Your task to perform on an android device: Look up the best rated Nike shoes on Nike.com Image 0: 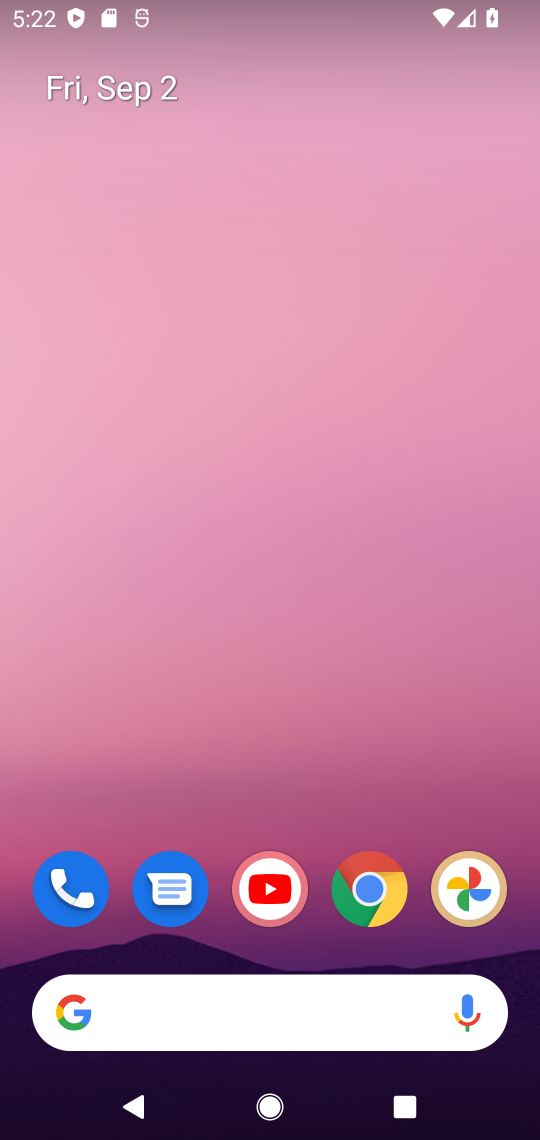
Step 0: click (273, 1000)
Your task to perform on an android device: Look up the best rated Nike shoes on Nike.com Image 1: 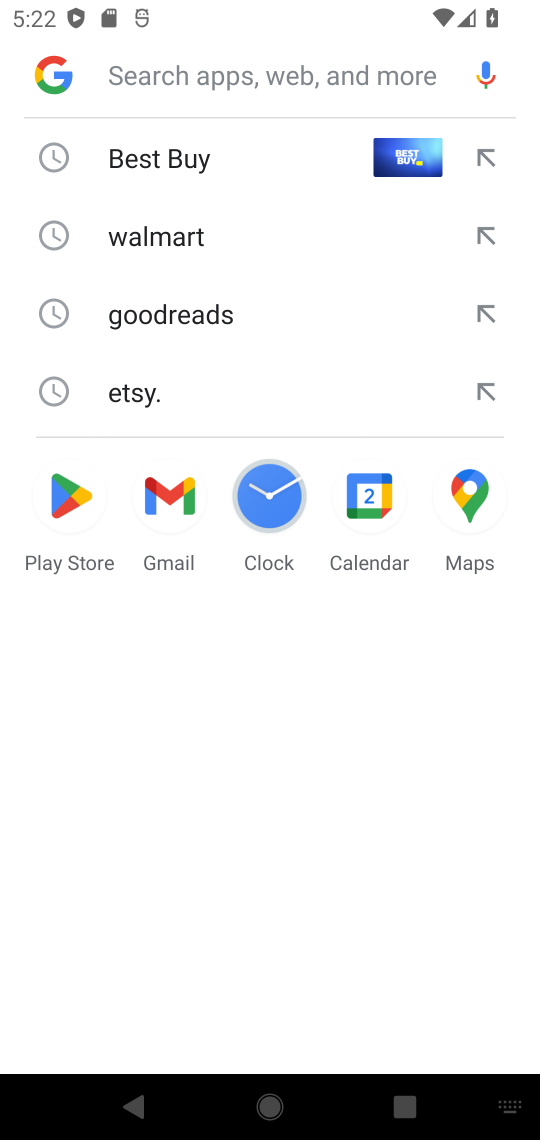
Step 1: type "Nike.com"
Your task to perform on an android device: Look up the best rated Nike shoes on Nike.com Image 2: 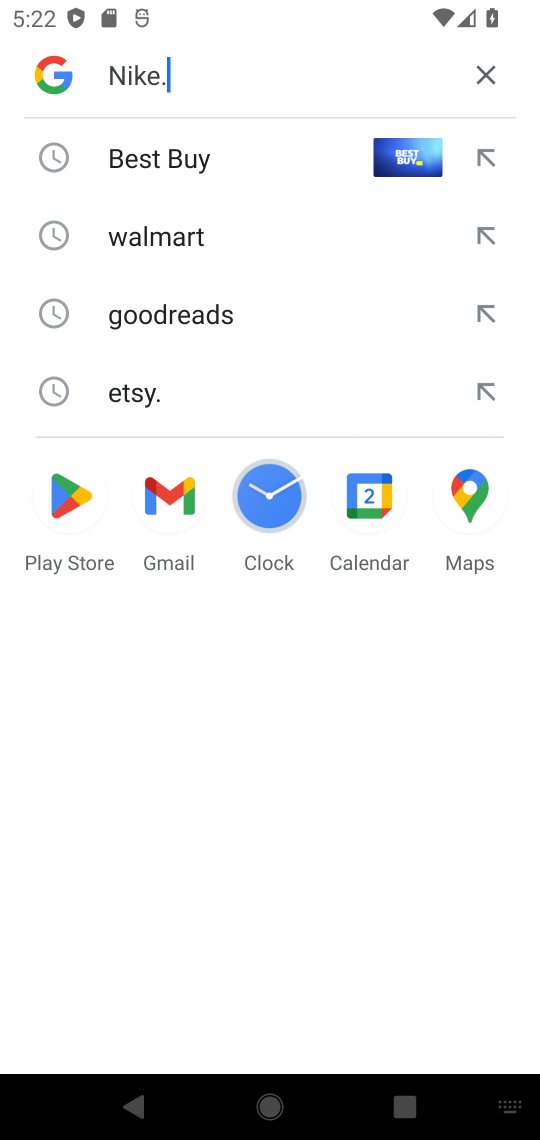
Step 2: type ""
Your task to perform on an android device: Look up the best rated Nike shoes on Nike.com Image 3: 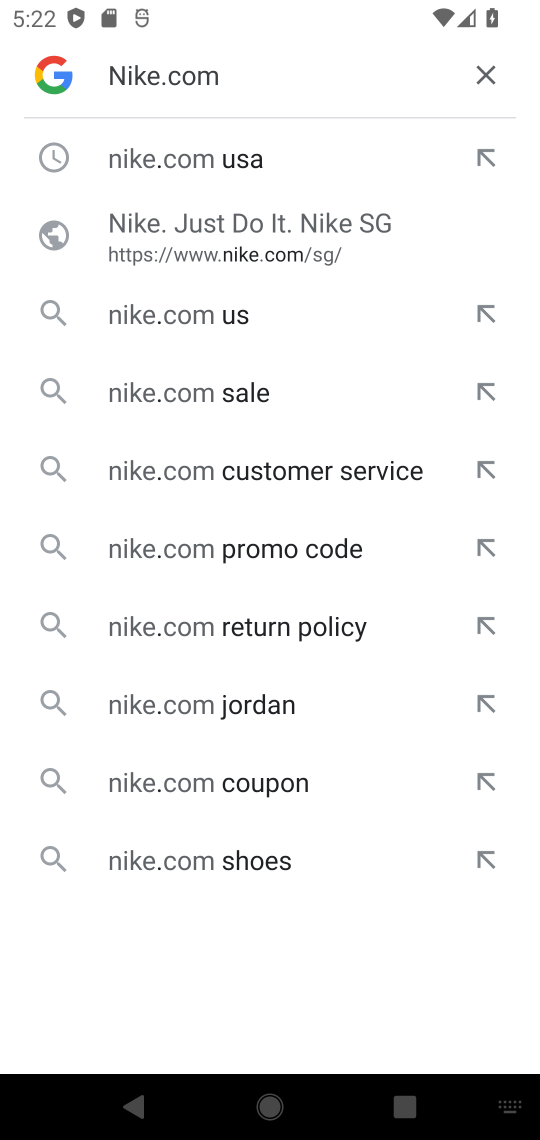
Step 3: click (199, 166)
Your task to perform on an android device: Look up the best rated Nike shoes on Nike.com Image 4: 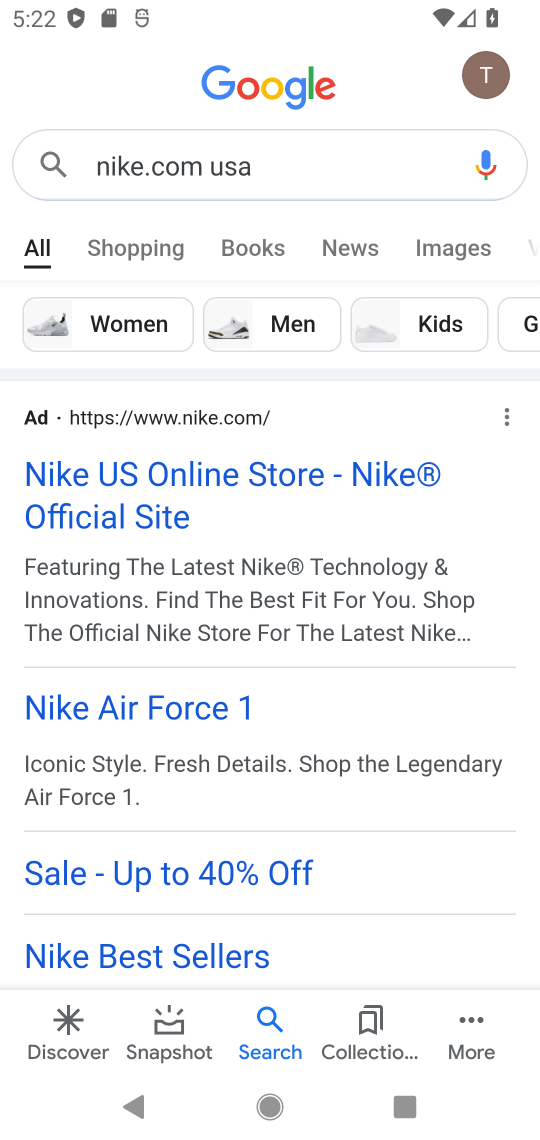
Step 4: drag from (224, 841) to (294, 458)
Your task to perform on an android device: Look up the best rated Nike shoes on Nike.com Image 5: 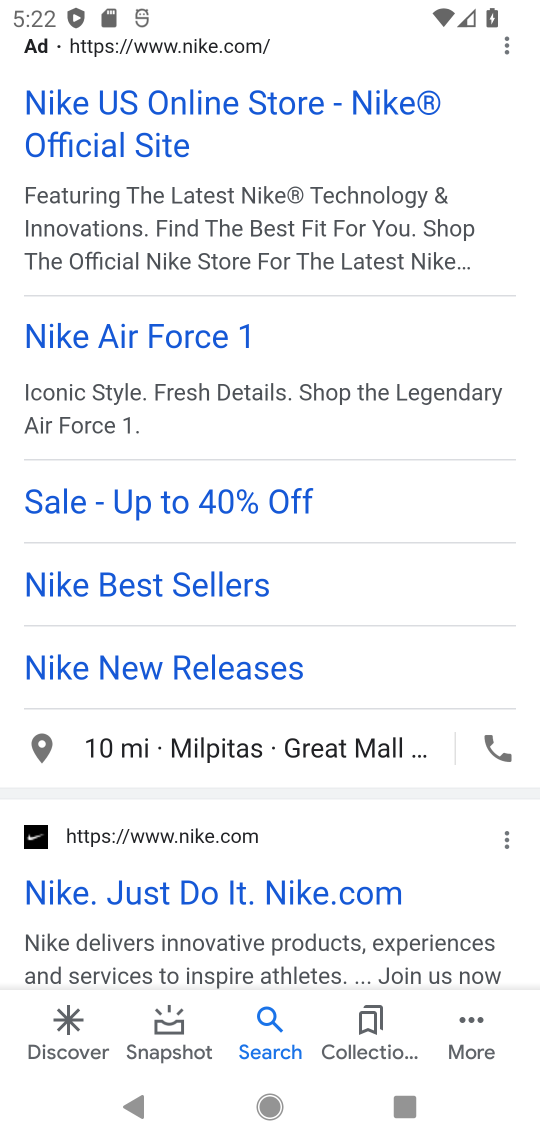
Step 5: click (234, 889)
Your task to perform on an android device: Look up the best rated Nike shoes on Nike.com Image 6: 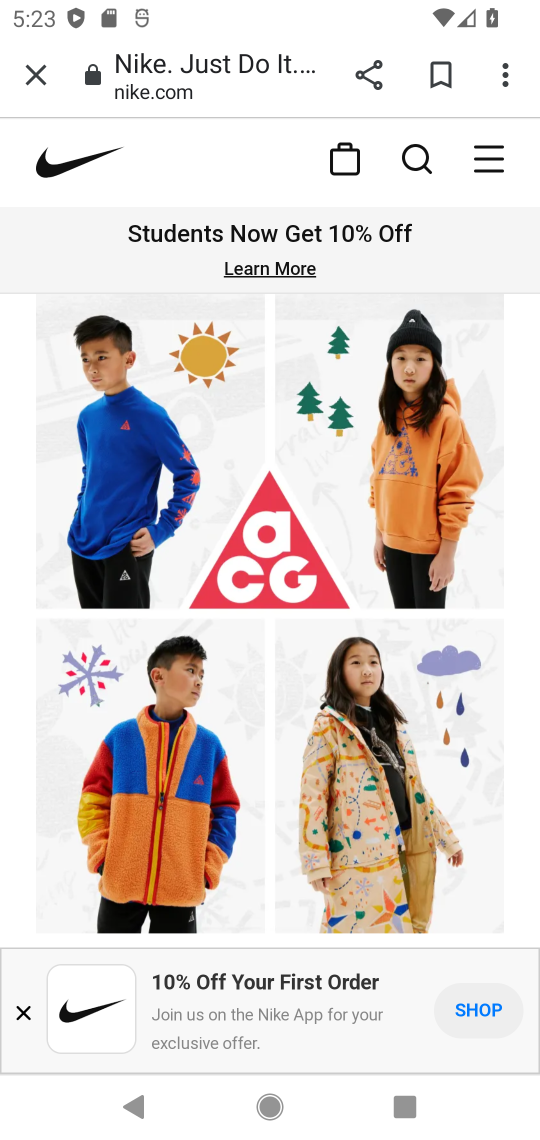
Step 6: click (407, 154)
Your task to perform on an android device: Look up the best rated Nike shoes on Nike.com Image 7: 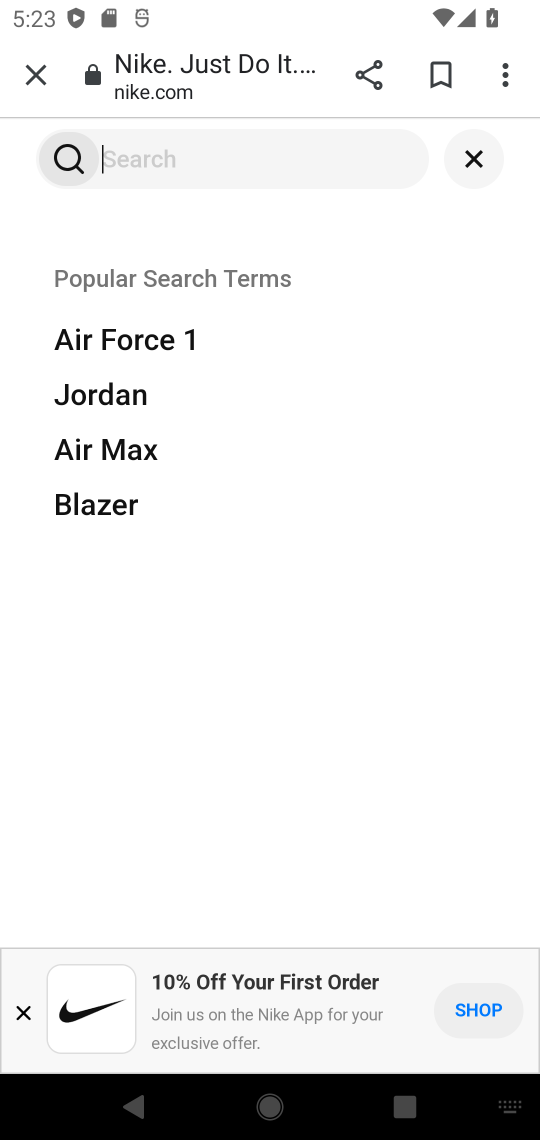
Step 7: type "best rated Nike shoes"
Your task to perform on an android device: Look up the best rated Nike shoes on Nike.com Image 8: 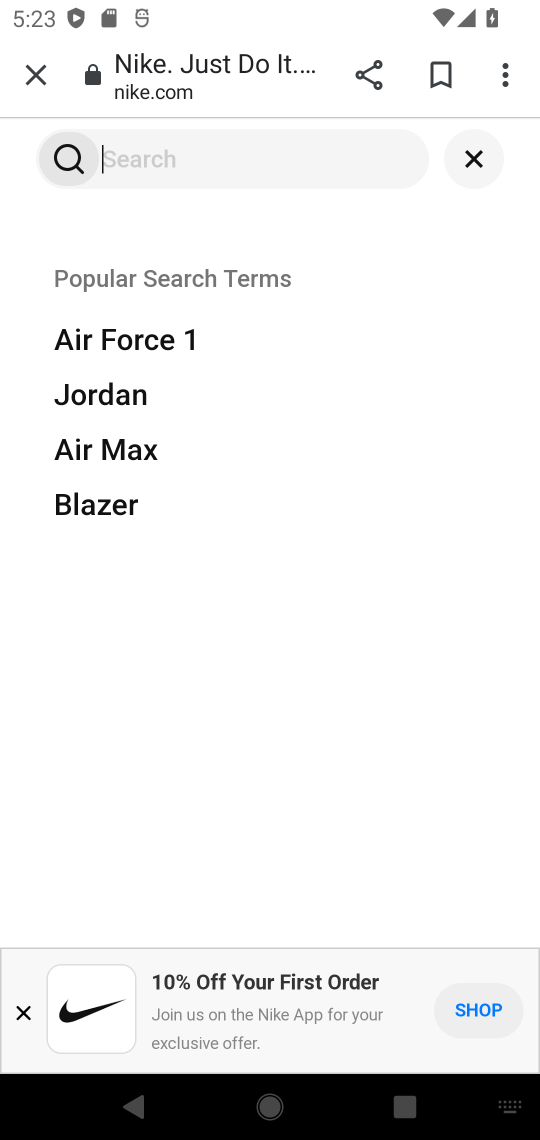
Step 8: type ""
Your task to perform on an android device: Look up the best rated Nike shoes on Nike.com Image 9: 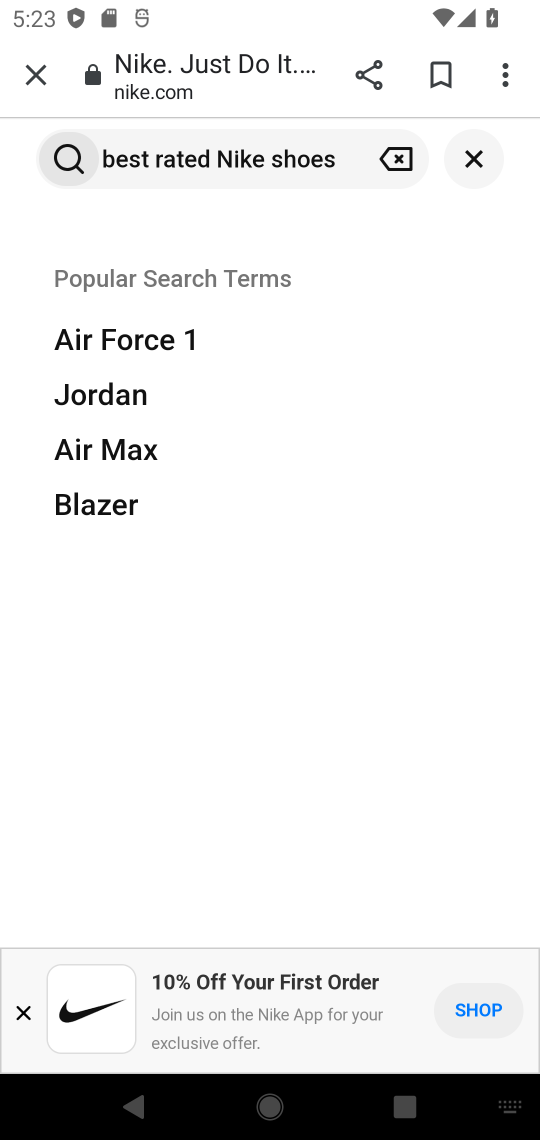
Step 9: click (60, 152)
Your task to perform on an android device: Look up the best rated Nike shoes on Nike.com Image 10: 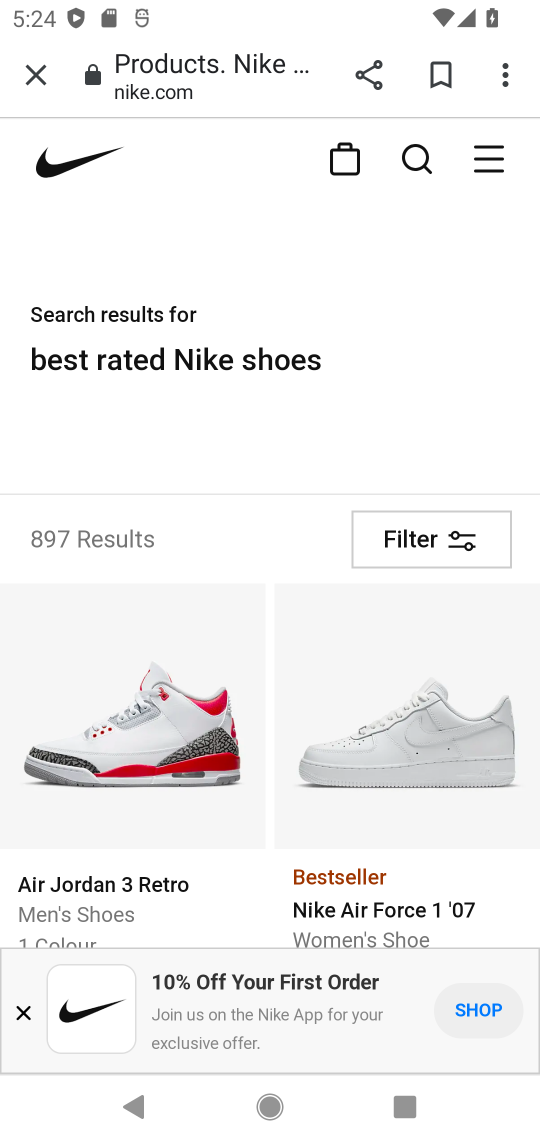
Step 10: task complete